Your task to perform on an android device: Is it going to rain tomorrow? Image 0: 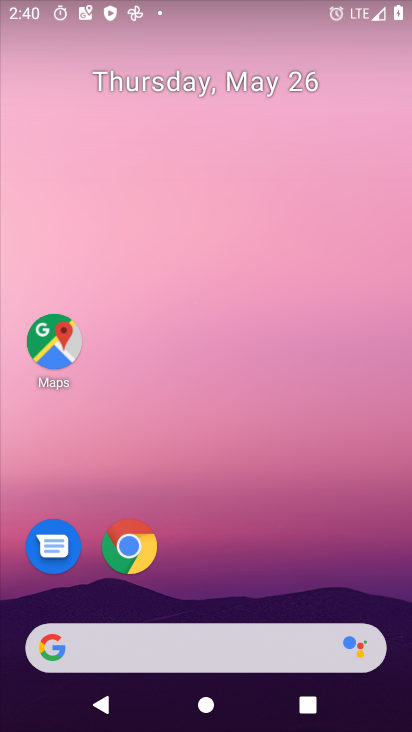
Step 0: drag from (217, 566) to (220, 171)
Your task to perform on an android device: Is it going to rain tomorrow? Image 1: 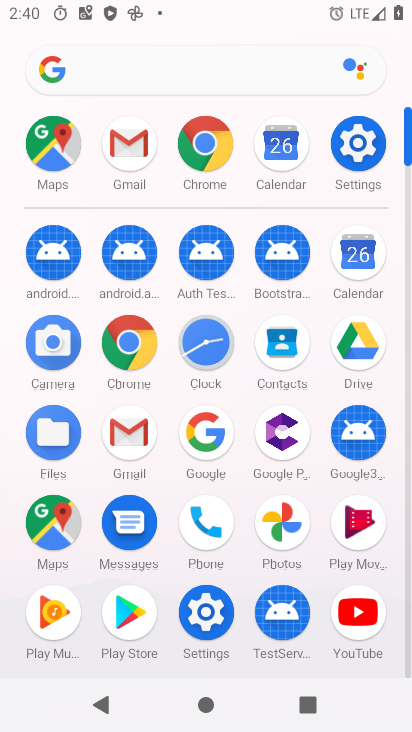
Step 1: click (208, 427)
Your task to perform on an android device: Is it going to rain tomorrow? Image 2: 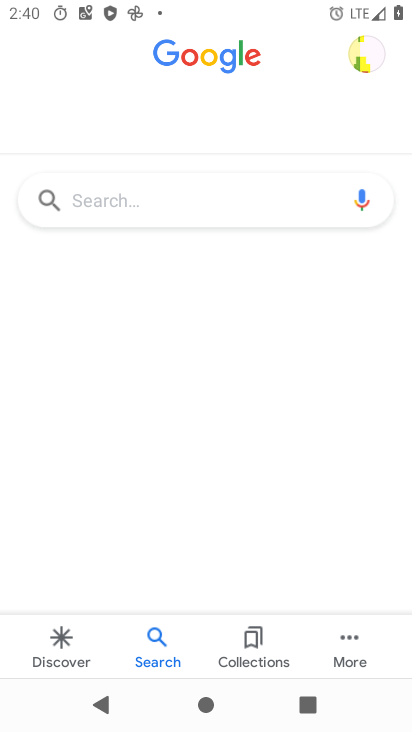
Step 2: click (213, 185)
Your task to perform on an android device: Is it going to rain tomorrow? Image 3: 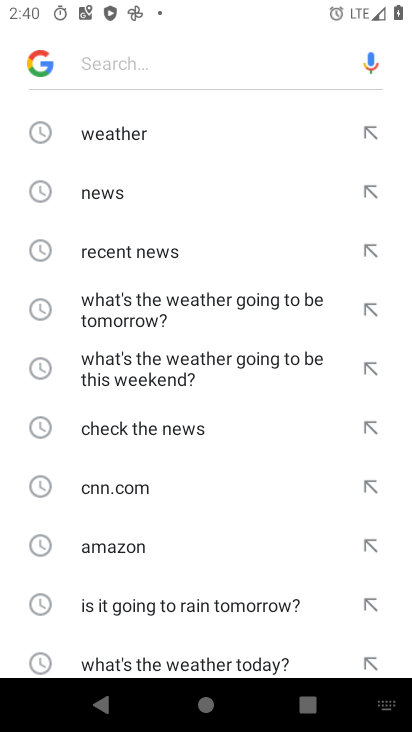
Step 3: type "is it going to rain tomorrow"
Your task to perform on an android device: Is it going to rain tomorrow? Image 4: 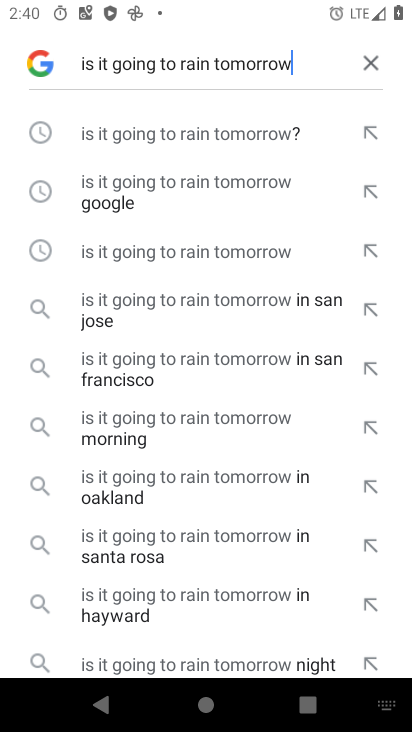
Step 4: click (210, 132)
Your task to perform on an android device: Is it going to rain tomorrow? Image 5: 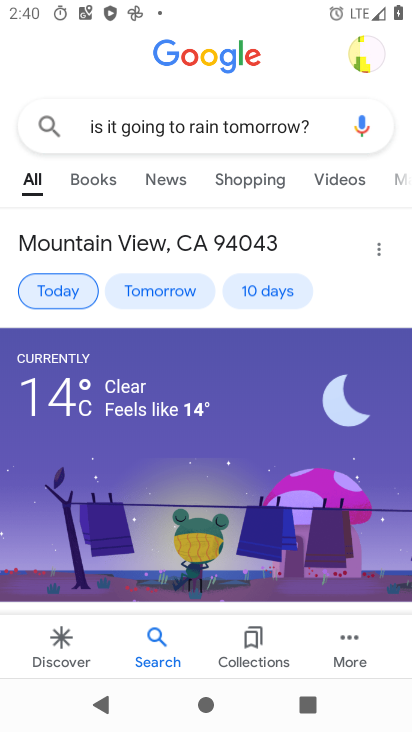
Step 5: task complete